Your task to perform on an android device: uninstall "Microsoft Excel" Image 0: 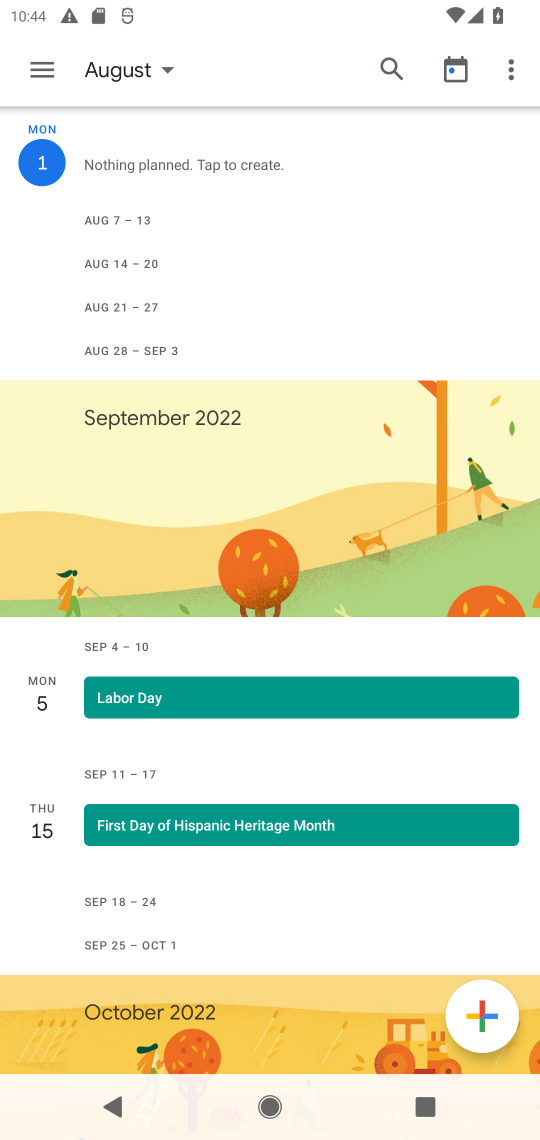
Step 0: press home button
Your task to perform on an android device: uninstall "Microsoft Excel" Image 1: 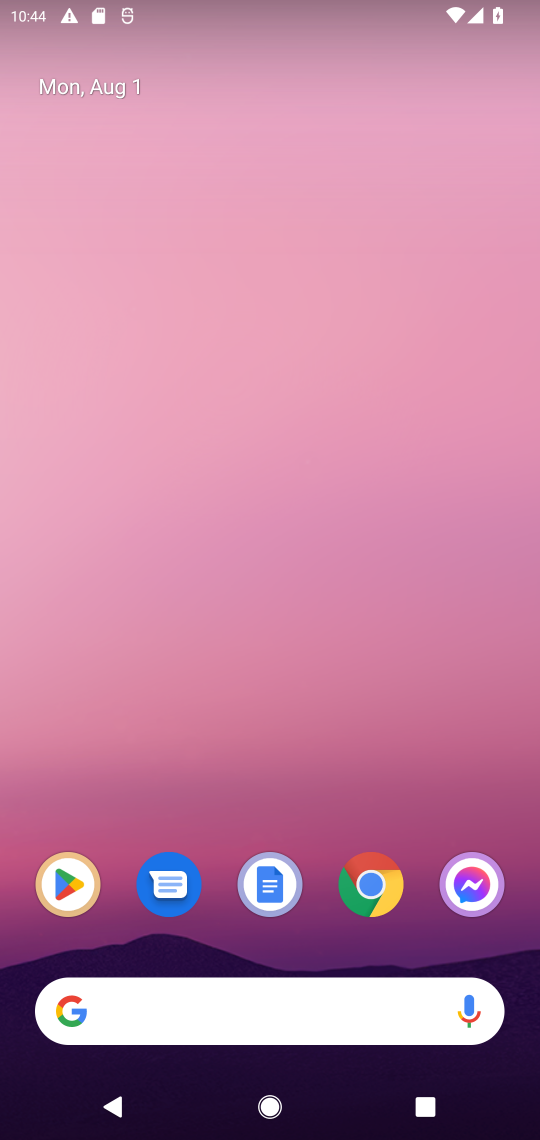
Step 1: click (73, 898)
Your task to perform on an android device: uninstall "Microsoft Excel" Image 2: 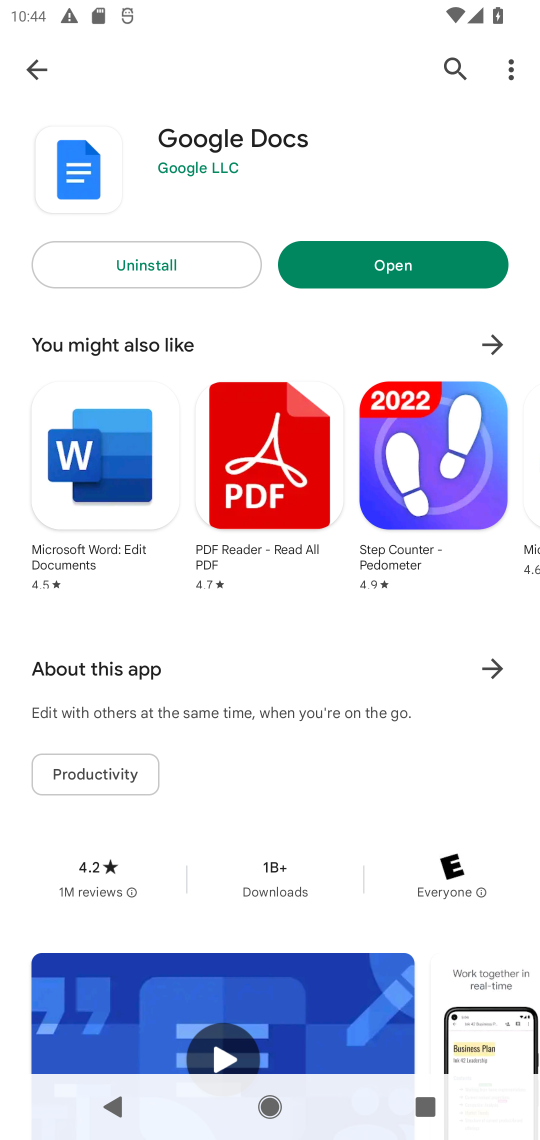
Step 2: click (451, 63)
Your task to perform on an android device: uninstall "Microsoft Excel" Image 3: 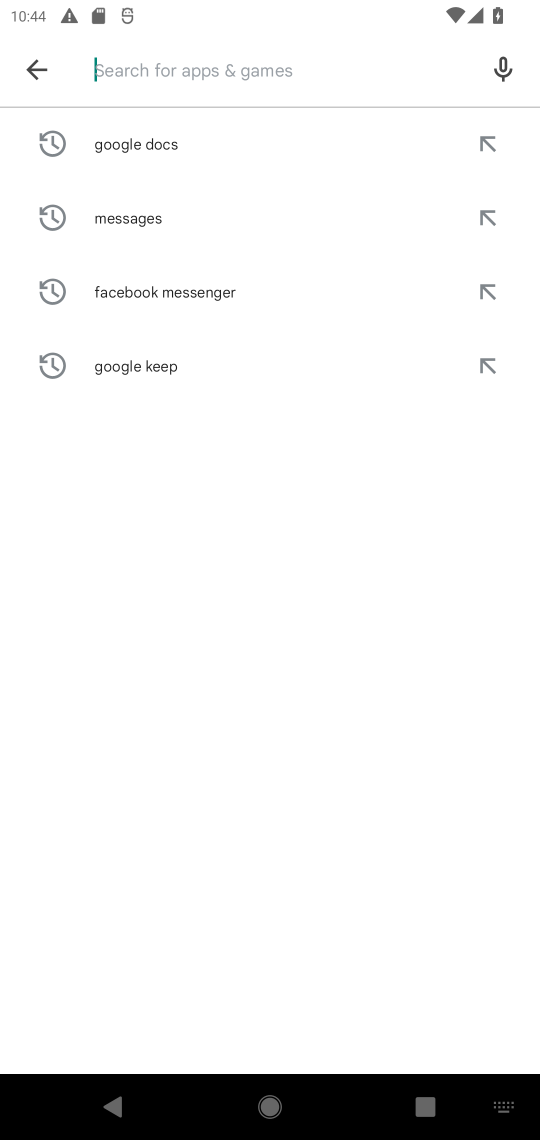
Step 3: type "microsoft excel"
Your task to perform on an android device: uninstall "Microsoft Excel" Image 4: 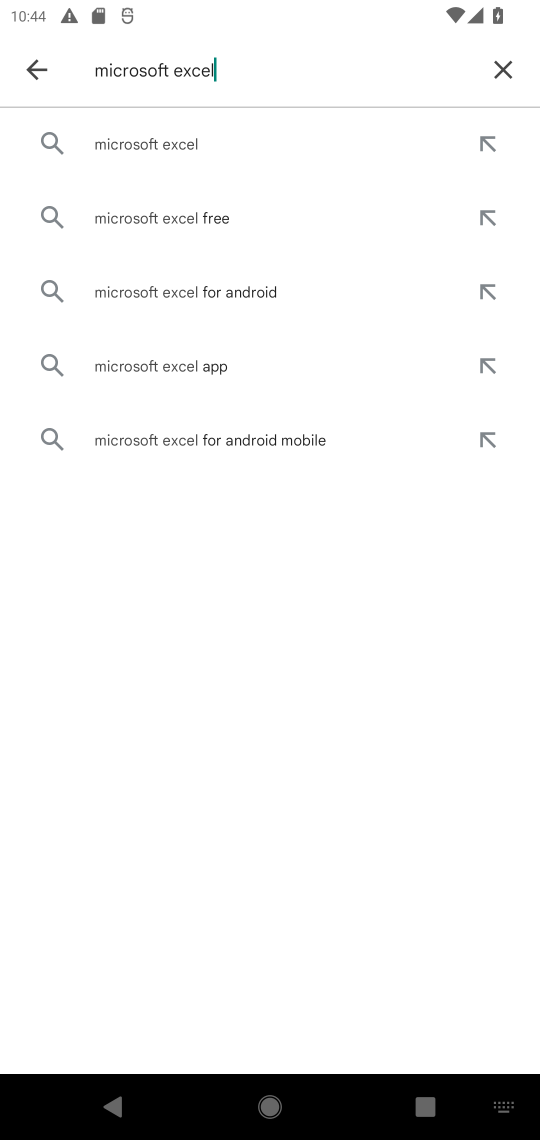
Step 4: click (271, 138)
Your task to perform on an android device: uninstall "Microsoft Excel" Image 5: 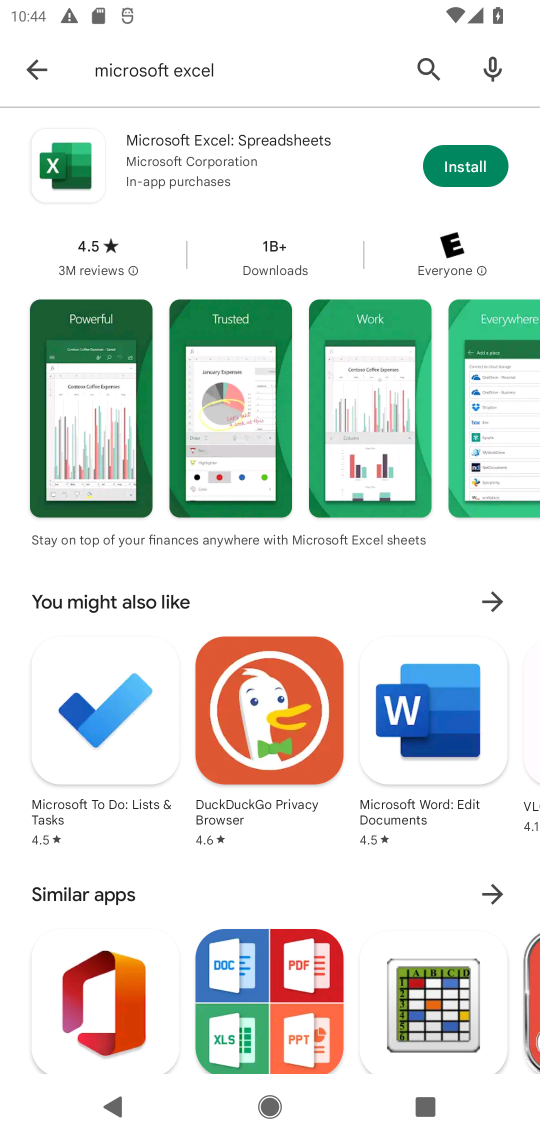
Step 5: click (271, 138)
Your task to perform on an android device: uninstall "Microsoft Excel" Image 6: 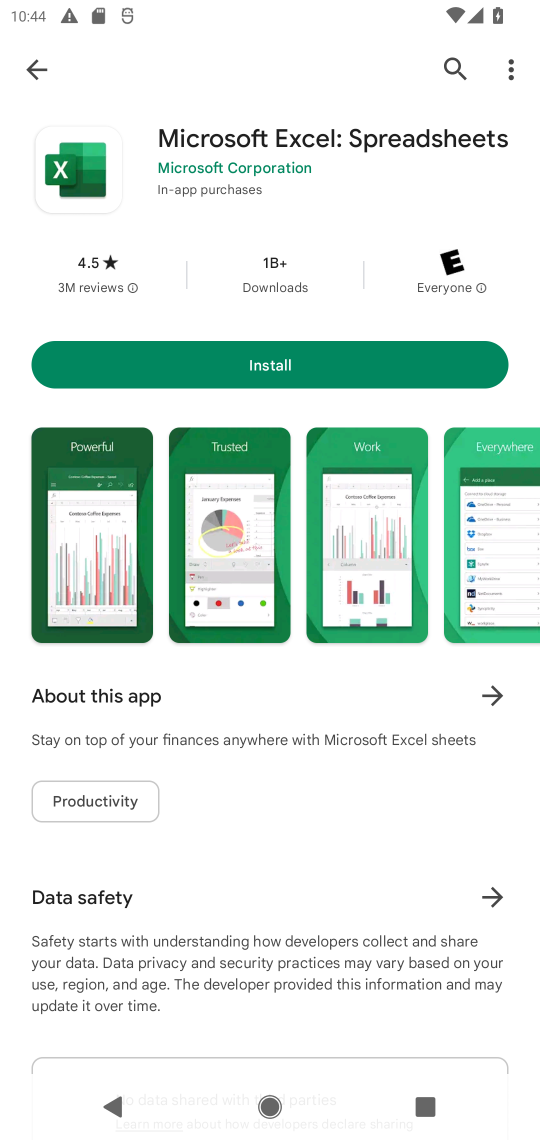
Step 6: task complete